Your task to perform on an android device: turn on bluetooth scan Image 0: 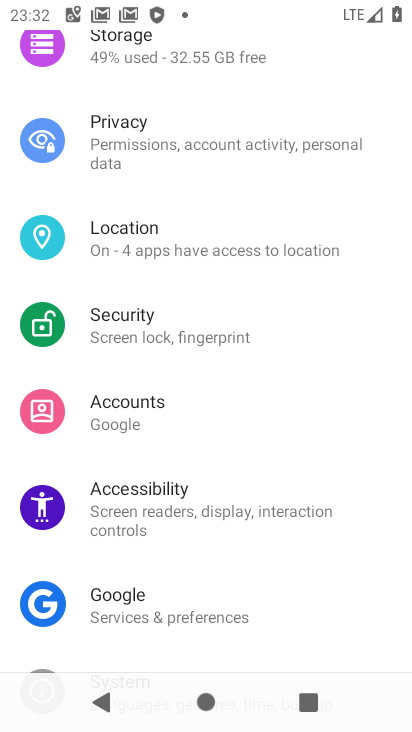
Step 0: press home button
Your task to perform on an android device: turn on bluetooth scan Image 1: 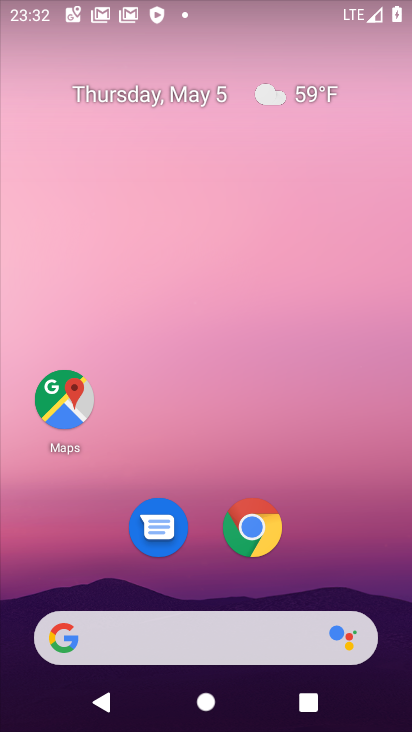
Step 1: drag from (223, 582) to (128, 5)
Your task to perform on an android device: turn on bluetooth scan Image 2: 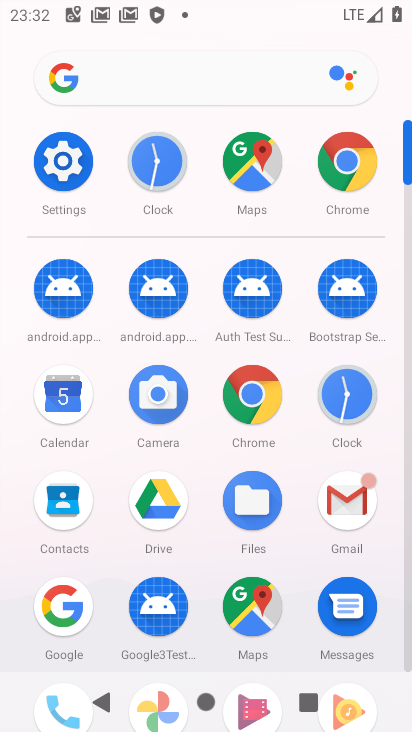
Step 2: click (77, 156)
Your task to perform on an android device: turn on bluetooth scan Image 3: 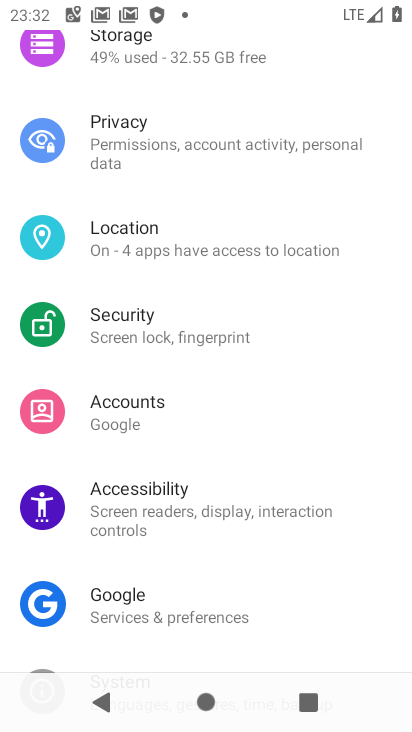
Step 3: drag from (215, 398) to (229, 164)
Your task to perform on an android device: turn on bluetooth scan Image 4: 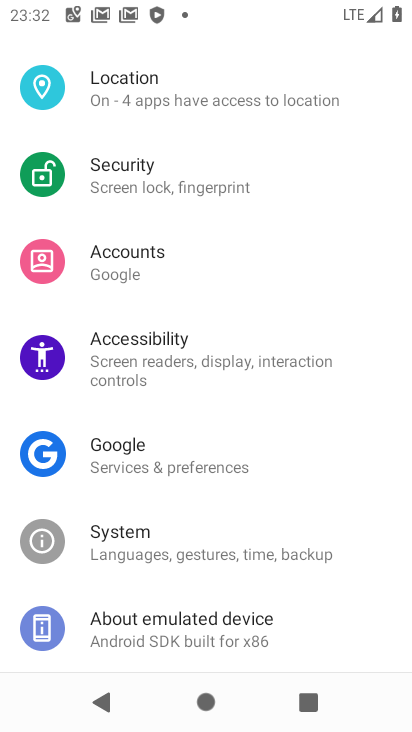
Step 4: click (201, 104)
Your task to perform on an android device: turn on bluetooth scan Image 5: 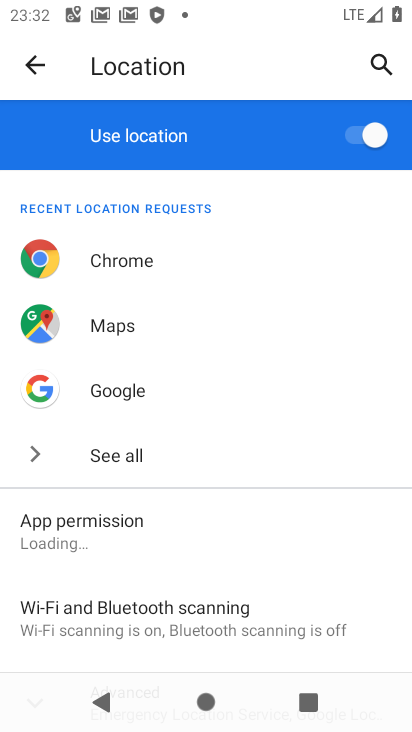
Step 5: click (172, 605)
Your task to perform on an android device: turn on bluetooth scan Image 6: 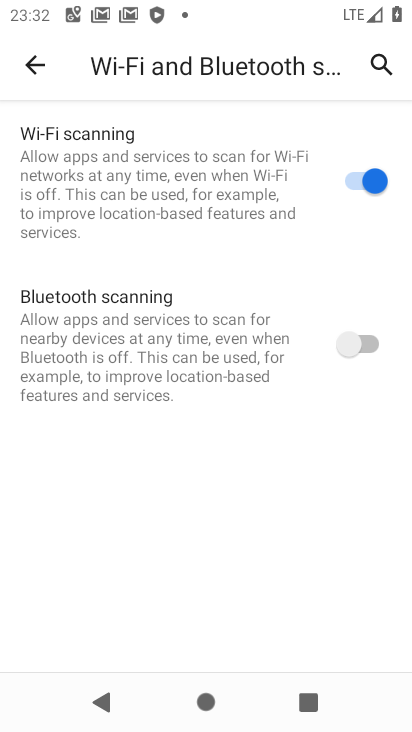
Step 6: click (367, 337)
Your task to perform on an android device: turn on bluetooth scan Image 7: 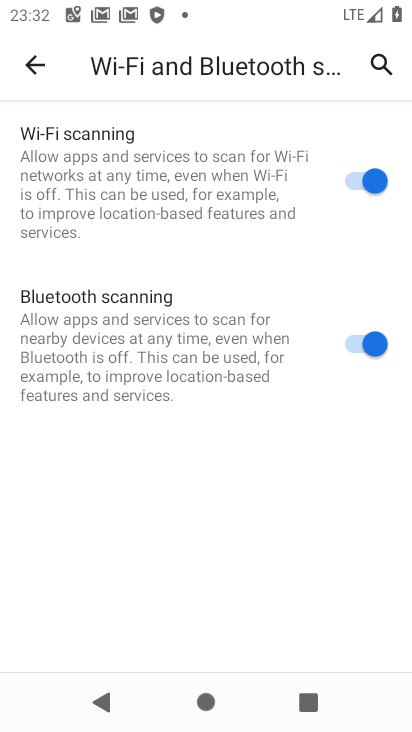
Step 7: task complete